Your task to perform on an android device: find photos in the google photos app Image 0: 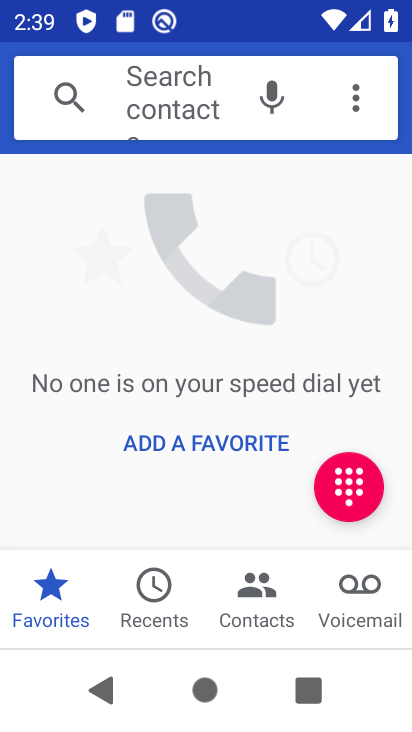
Step 0: press home button
Your task to perform on an android device: find photos in the google photos app Image 1: 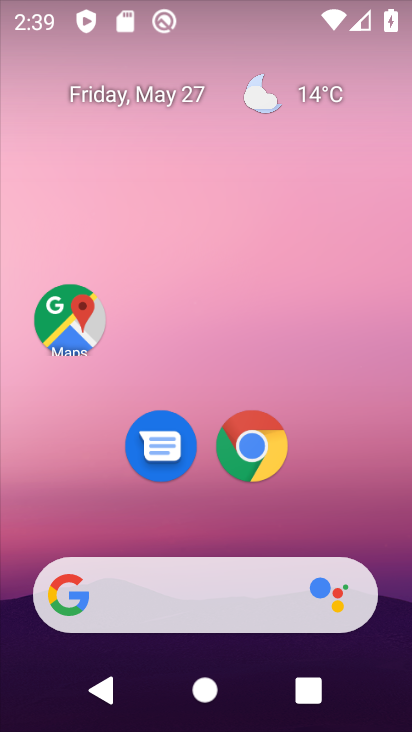
Step 1: drag from (230, 600) to (348, 271)
Your task to perform on an android device: find photos in the google photos app Image 2: 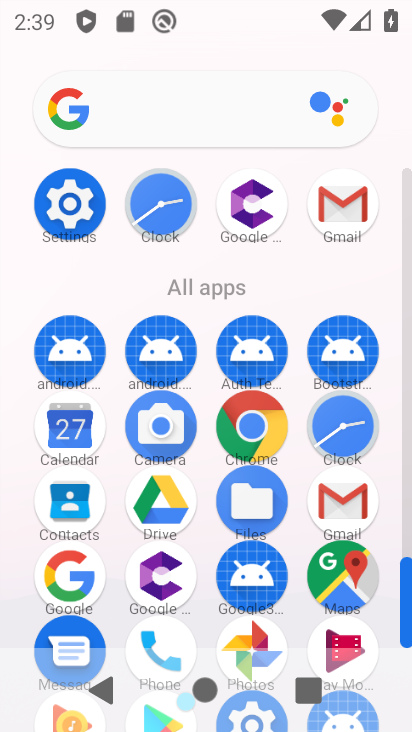
Step 2: drag from (223, 455) to (238, 387)
Your task to perform on an android device: find photos in the google photos app Image 3: 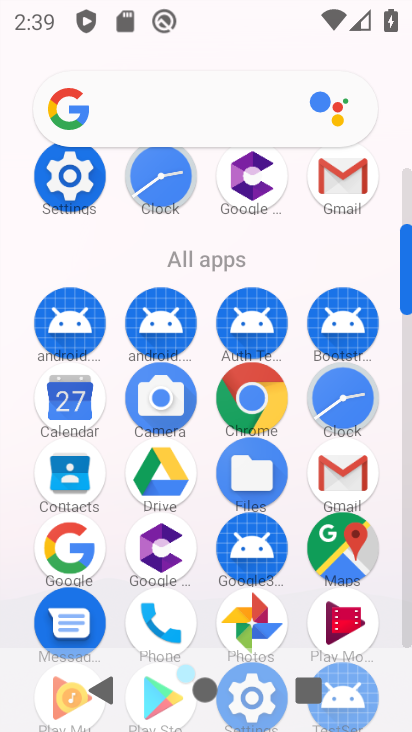
Step 3: click (245, 618)
Your task to perform on an android device: find photos in the google photos app Image 4: 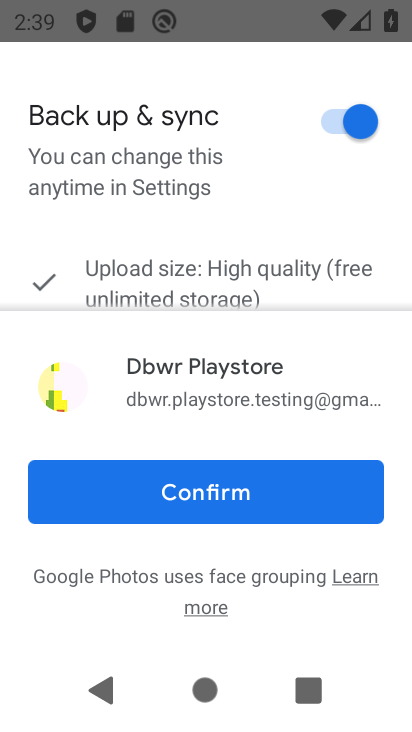
Step 4: click (189, 496)
Your task to perform on an android device: find photos in the google photos app Image 5: 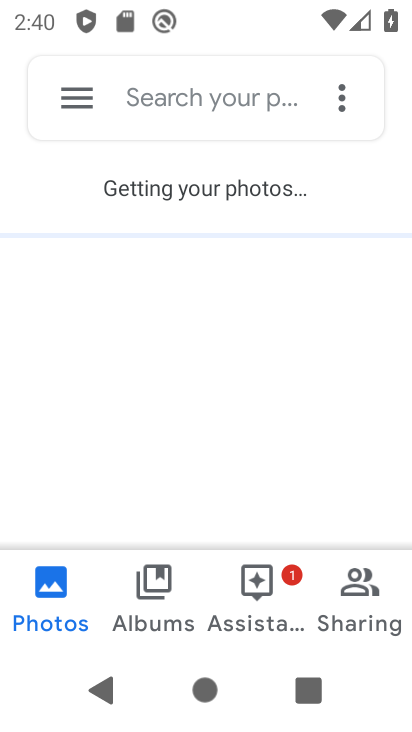
Step 5: task complete